Your task to perform on an android device: turn notification dots on Image 0: 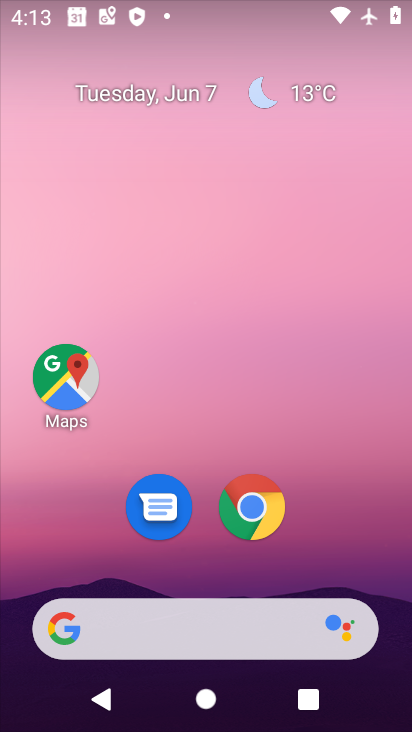
Step 0: drag from (341, 544) to (289, 0)
Your task to perform on an android device: turn notification dots on Image 1: 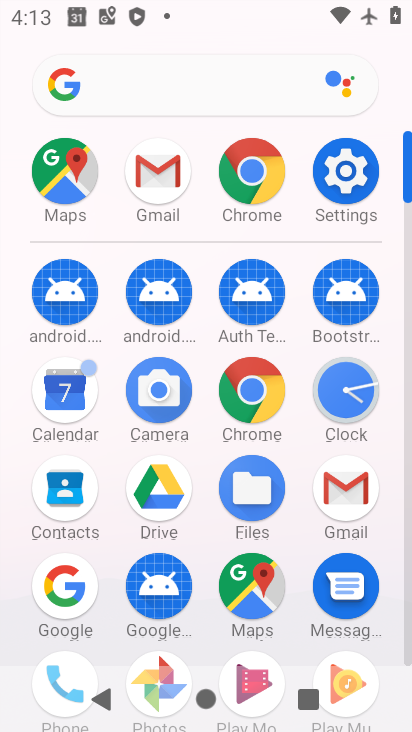
Step 1: click (343, 168)
Your task to perform on an android device: turn notification dots on Image 2: 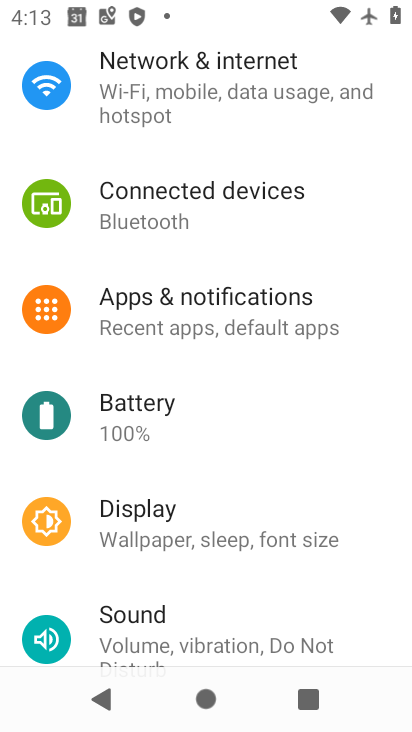
Step 2: click (246, 305)
Your task to perform on an android device: turn notification dots on Image 3: 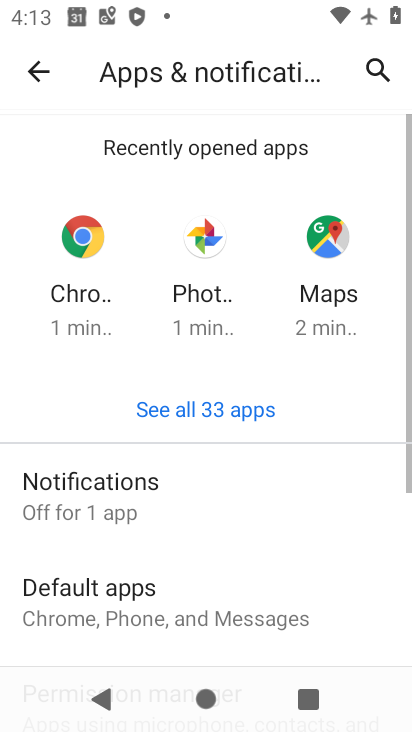
Step 3: drag from (200, 533) to (215, 205)
Your task to perform on an android device: turn notification dots on Image 4: 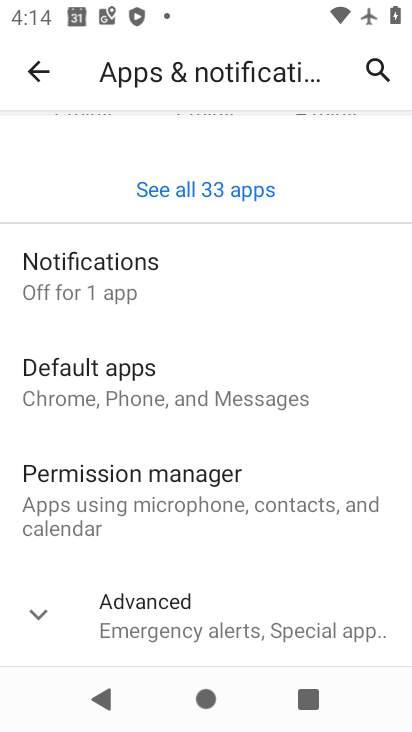
Step 4: click (20, 618)
Your task to perform on an android device: turn notification dots on Image 5: 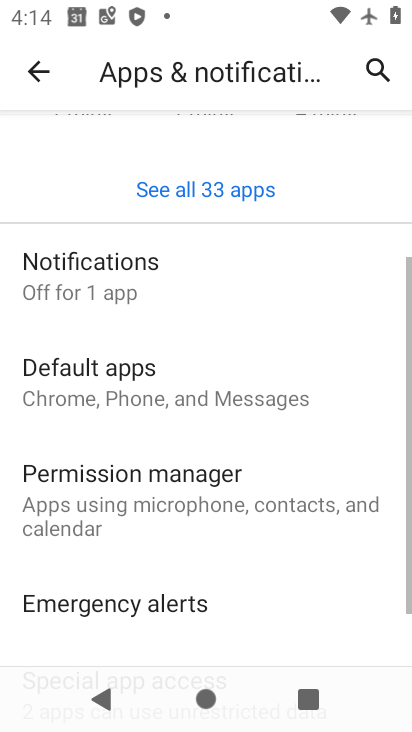
Step 5: drag from (283, 602) to (305, 254)
Your task to perform on an android device: turn notification dots on Image 6: 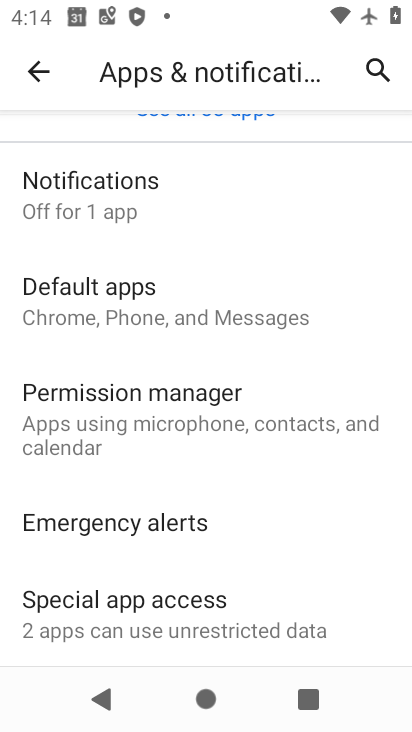
Step 6: click (177, 203)
Your task to perform on an android device: turn notification dots on Image 7: 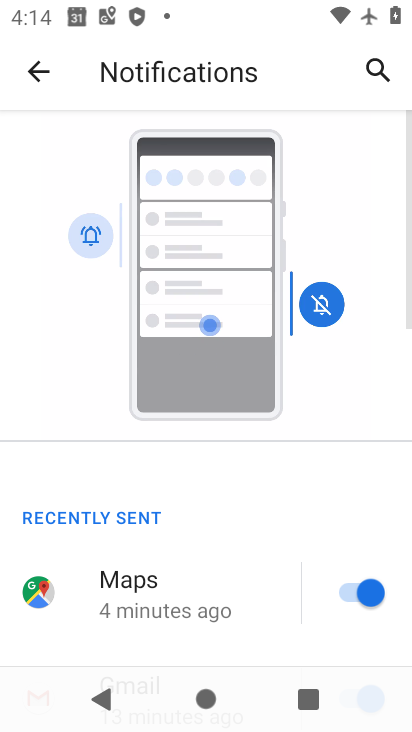
Step 7: drag from (213, 584) to (258, 97)
Your task to perform on an android device: turn notification dots on Image 8: 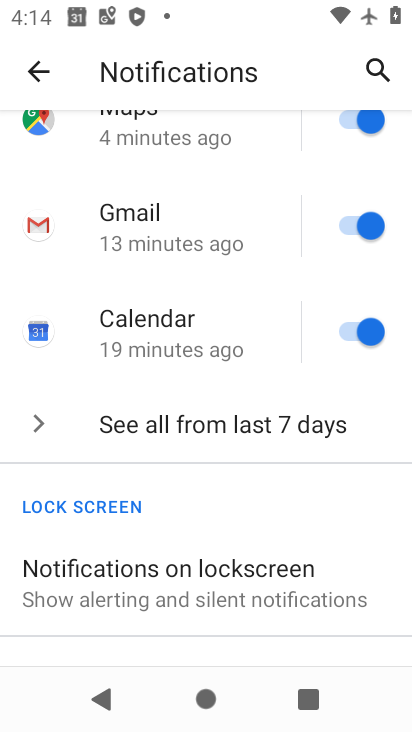
Step 8: drag from (209, 564) to (258, 114)
Your task to perform on an android device: turn notification dots on Image 9: 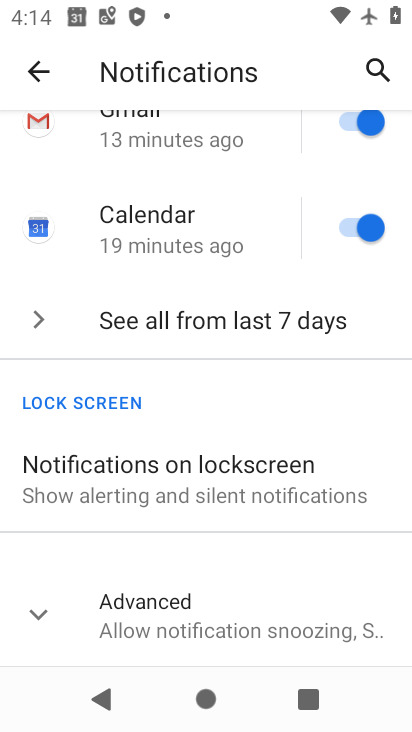
Step 9: click (149, 622)
Your task to perform on an android device: turn notification dots on Image 10: 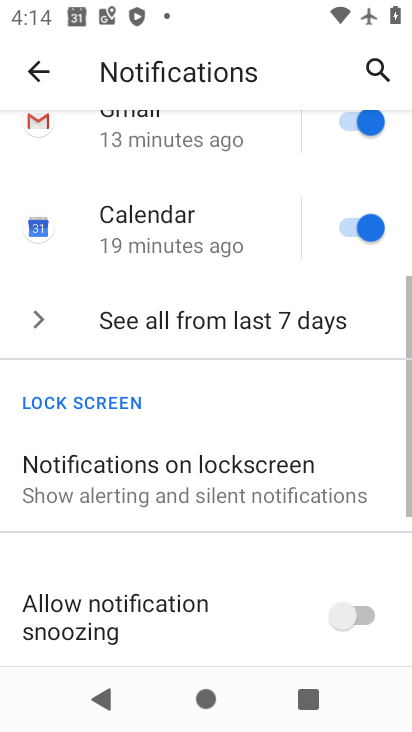
Step 10: task complete